Your task to perform on an android device: Toggle the flashlight Image 0: 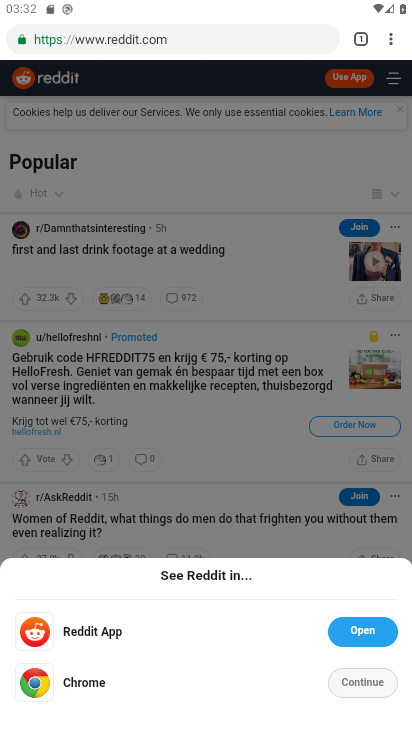
Step 0: press home button
Your task to perform on an android device: Toggle the flashlight Image 1: 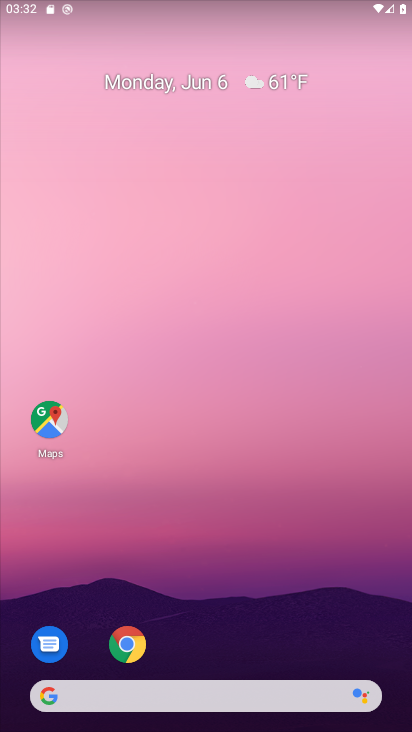
Step 1: drag from (244, 636) to (254, 94)
Your task to perform on an android device: Toggle the flashlight Image 2: 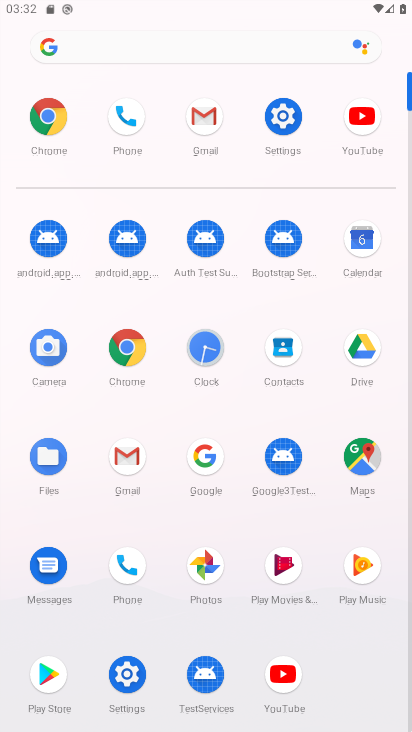
Step 2: click (280, 105)
Your task to perform on an android device: Toggle the flashlight Image 3: 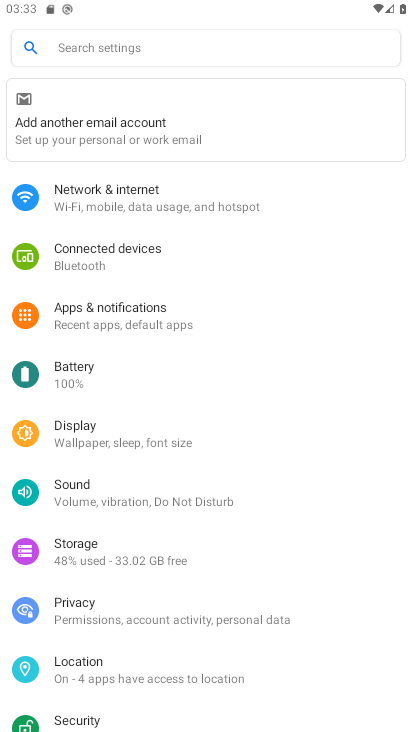
Step 3: click (180, 57)
Your task to perform on an android device: Toggle the flashlight Image 4: 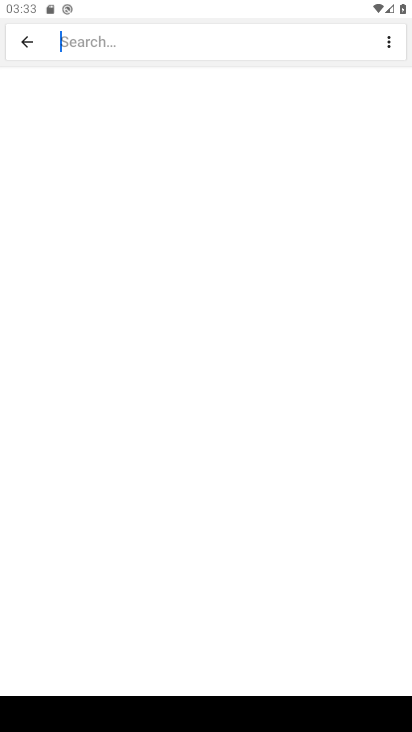
Step 4: type "flashlight"
Your task to perform on an android device: Toggle the flashlight Image 5: 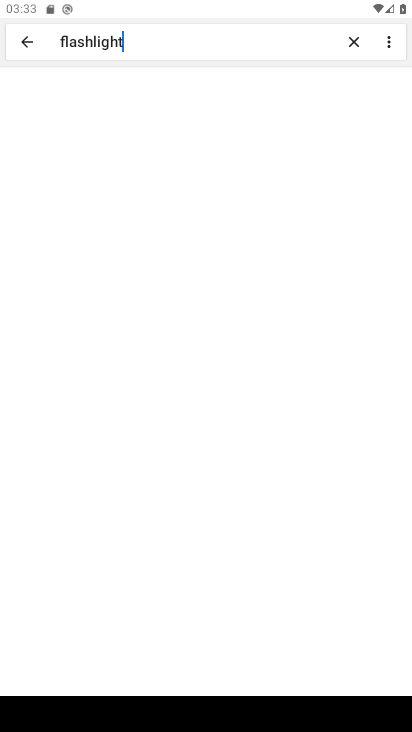
Step 5: click (133, 86)
Your task to perform on an android device: Toggle the flashlight Image 6: 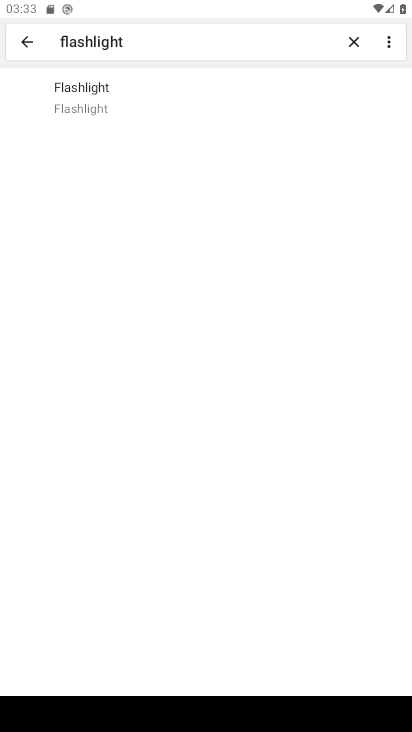
Step 6: click (117, 97)
Your task to perform on an android device: Toggle the flashlight Image 7: 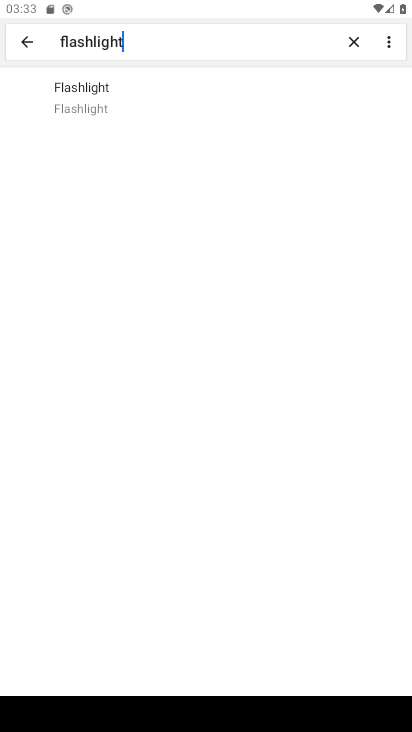
Step 7: click (104, 99)
Your task to perform on an android device: Toggle the flashlight Image 8: 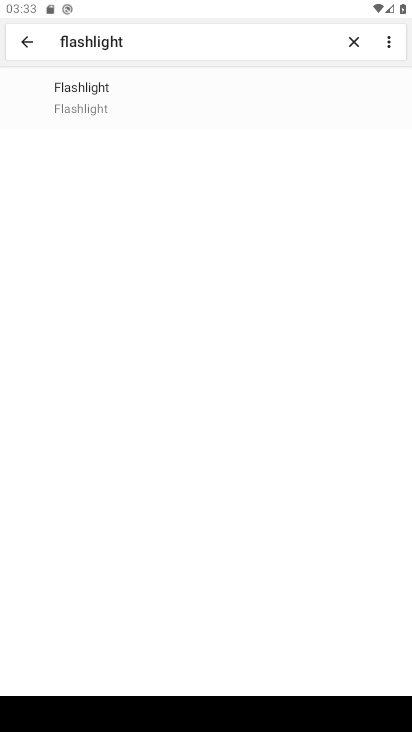
Step 8: click (104, 100)
Your task to perform on an android device: Toggle the flashlight Image 9: 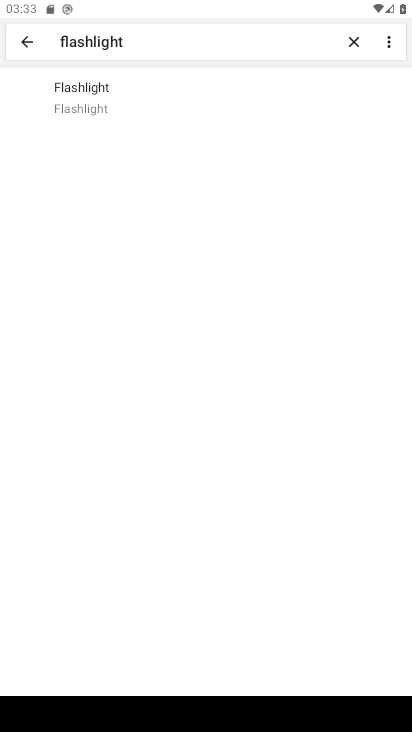
Step 9: task complete